Your task to perform on an android device: Find coffee shops on Maps Image 0: 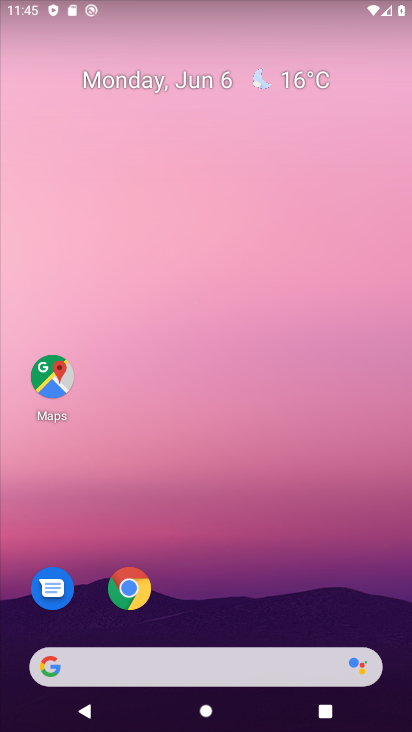
Step 0: click (41, 373)
Your task to perform on an android device: Find coffee shops on Maps Image 1: 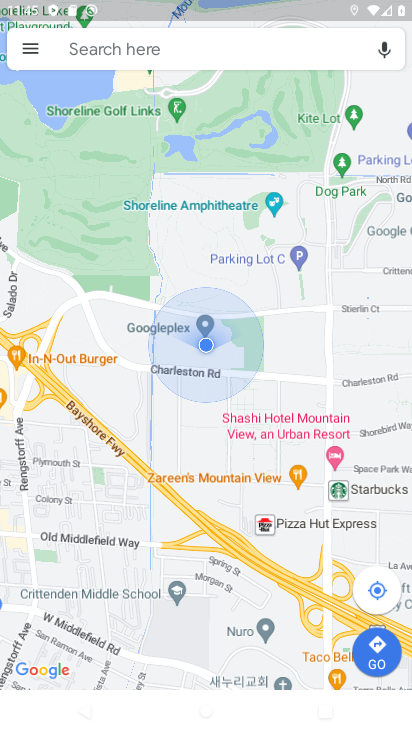
Step 1: click (124, 48)
Your task to perform on an android device: Find coffee shops on Maps Image 2: 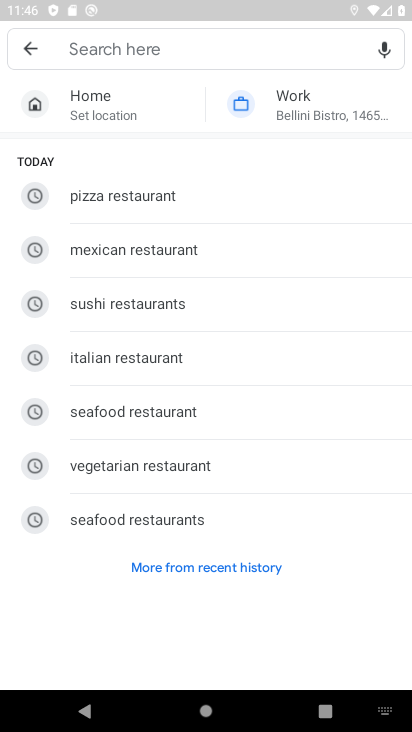
Step 2: type "coffee shops"
Your task to perform on an android device: Find coffee shops on Maps Image 3: 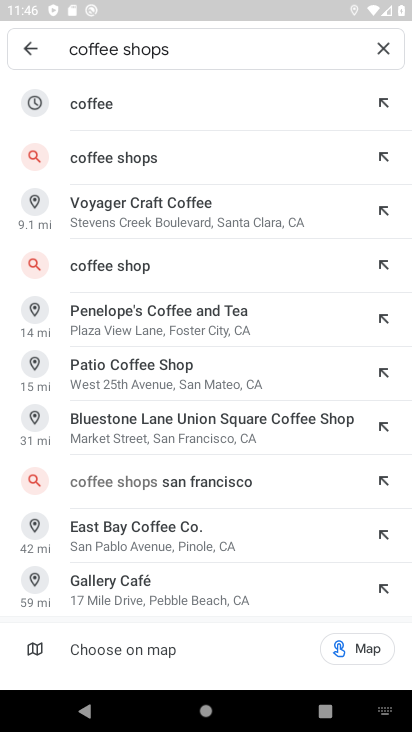
Step 3: click (317, 159)
Your task to perform on an android device: Find coffee shops on Maps Image 4: 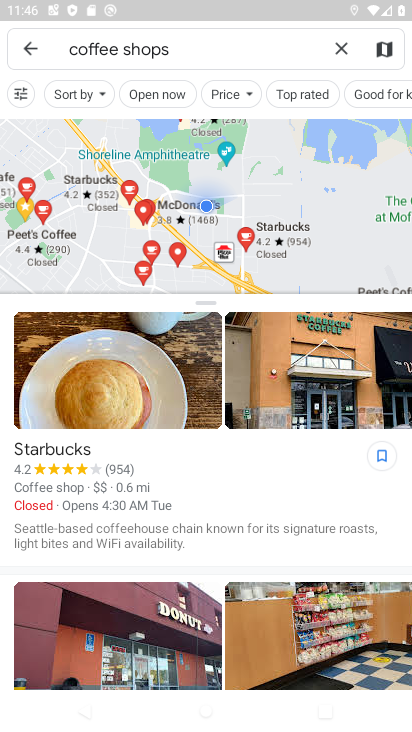
Step 4: task complete